Your task to perform on an android device: turn off improve location accuracy Image 0: 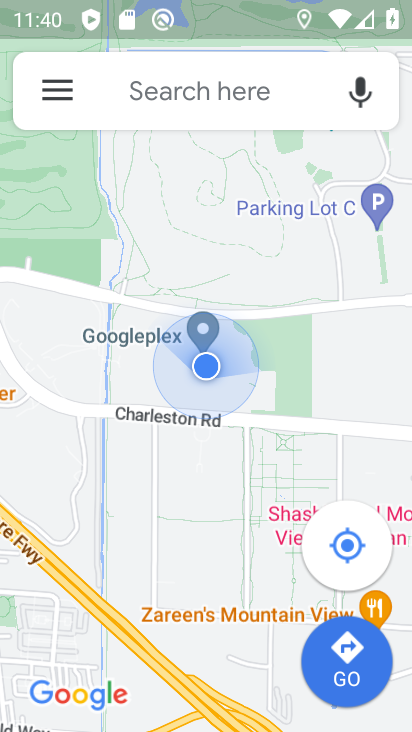
Step 0: press home button
Your task to perform on an android device: turn off improve location accuracy Image 1: 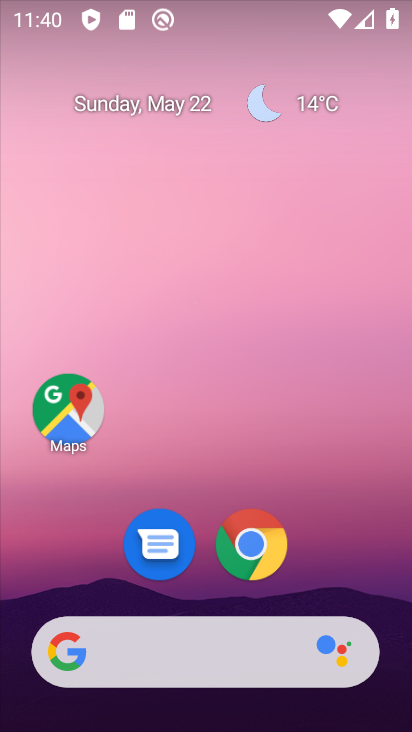
Step 1: drag from (334, 520) to (268, 93)
Your task to perform on an android device: turn off improve location accuracy Image 2: 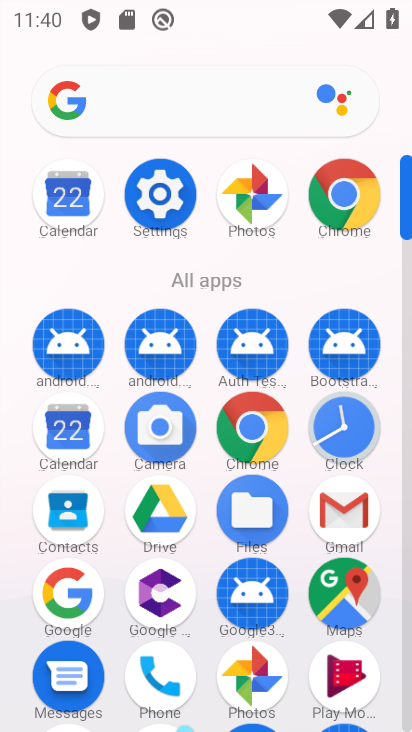
Step 2: click (157, 191)
Your task to perform on an android device: turn off improve location accuracy Image 3: 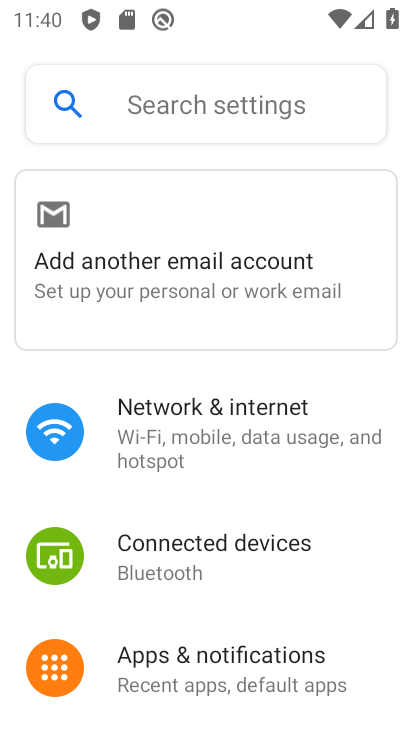
Step 3: drag from (226, 701) to (239, 228)
Your task to perform on an android device: turn off improve location accuracy Image 4: 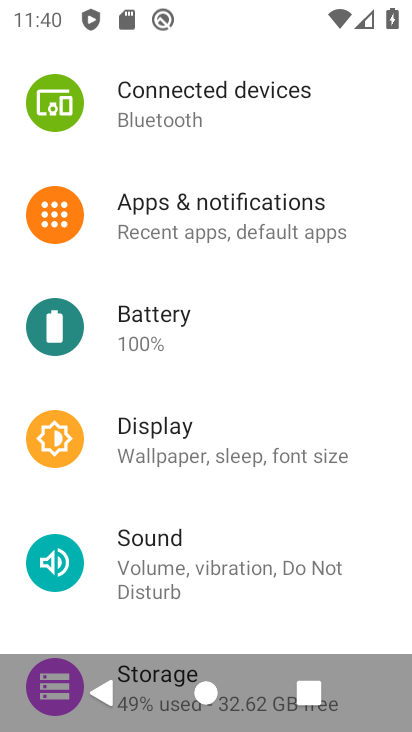
Step 4: drag from (229, 545) to (234, 202)
Your task to perform on an android device: turn off improve location accuracy Image 5: 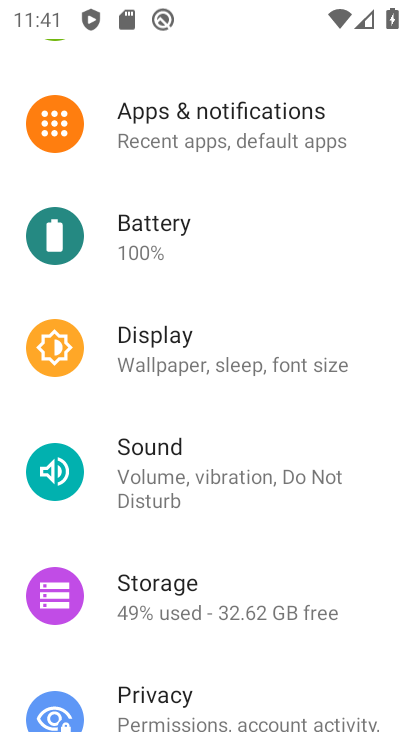
Step 5: drag from (244, 594) to (236, 108)
Your task to perform on an android device: turn off improve location accuracy Image 6: 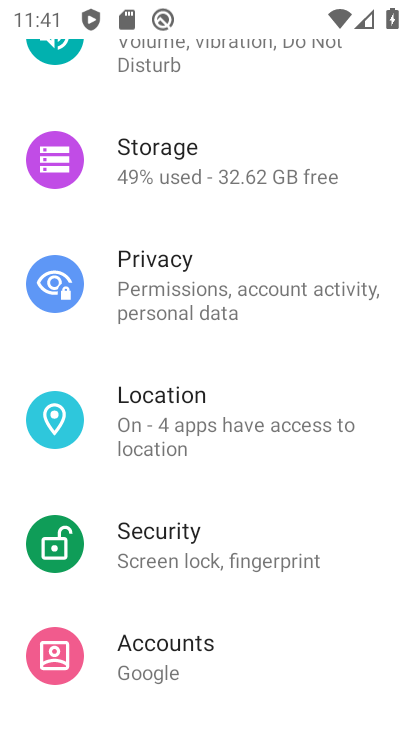
Step 6: drag from (206, 606) to (234, 376)
Your task to perform on an android device: turn off improve location accuracy Image 7: 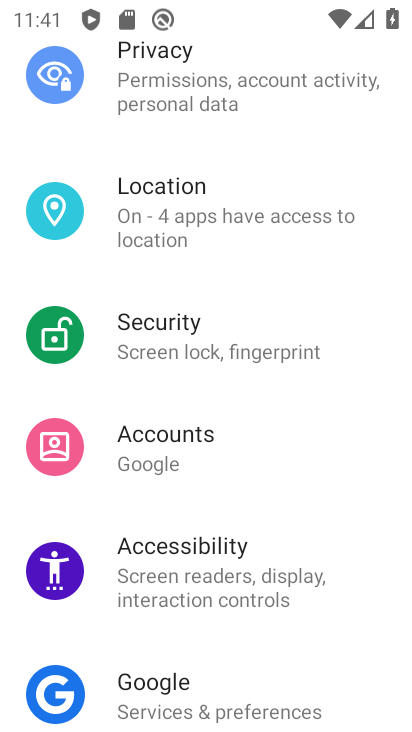
Step 7: click (163, 216)
Your task to perform on an android device: turn off improve location accuracy Image 8: 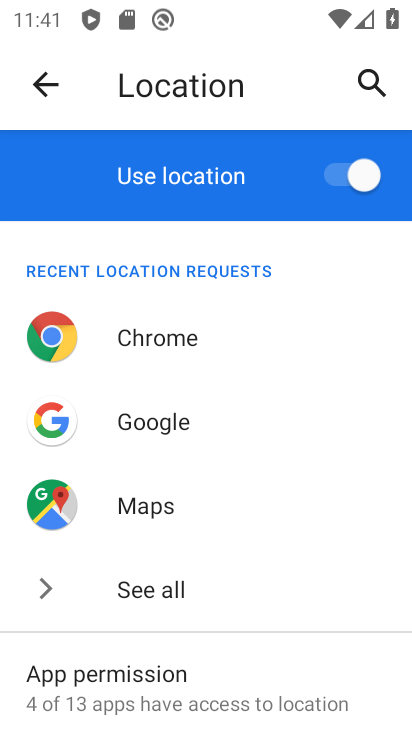
Step 8: drag from (213, 654) to (259, 161)
Your task to perform on an android device: turn off improve location accuracy Image 9: 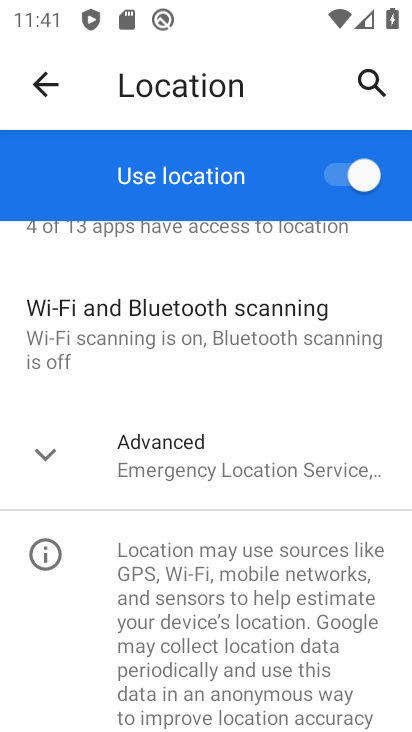
Step 9: click (198, 490)
Your task to perform on an android device: turn off improve location accuracy Image 10: 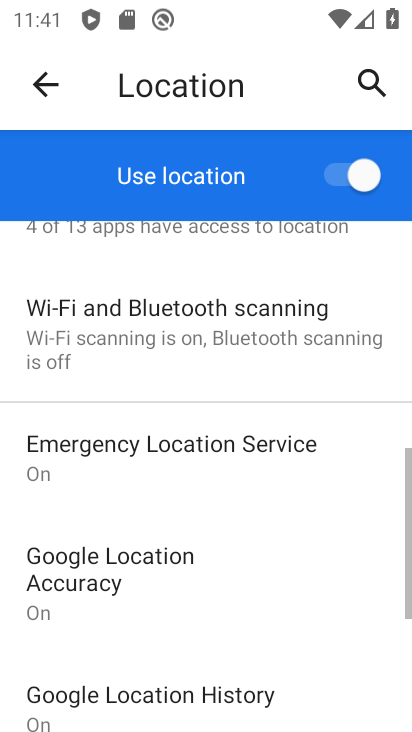
Step 10: drag from (259, 603) to (277, 283)
Your task to perform on an android device: turn off improve location accuracy Image 11: 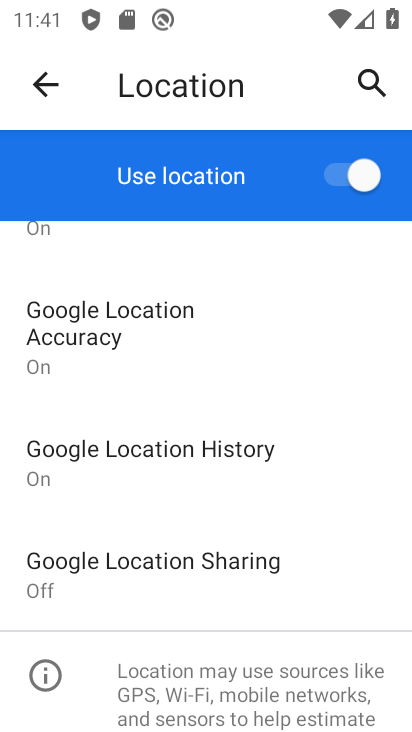
Step 11: click (146, 327)
Your task to perform on an android device: turn off improve location accuracy Image 12: 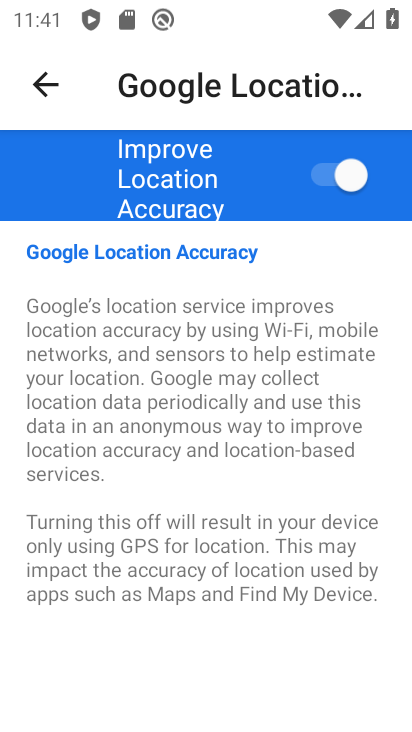
Step 12: click (342, 184)
Your task to perform on an android device: turn off improve location accuracy Image 13: 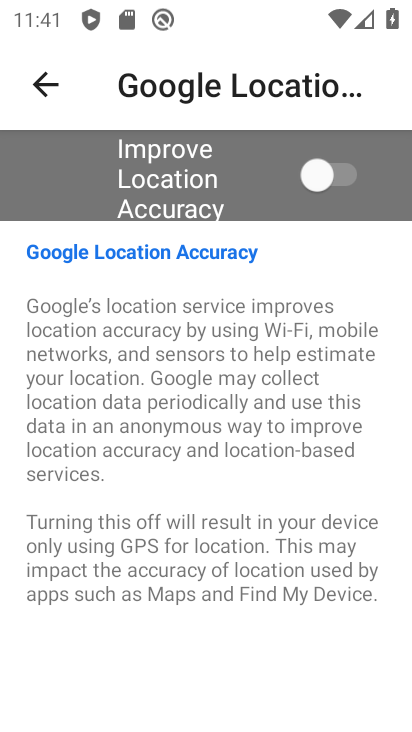
Step 13: task complete